Your task to perform on an android device: move a message to another label in the gmail app Image 0: 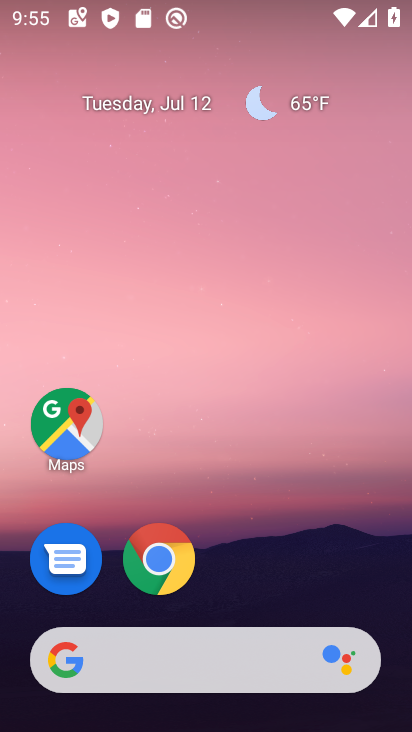
Step 0: drag from (328, 580) to (299, 171)
Your task to perform on an android device: move a message to another label in the gmail app Image 1: 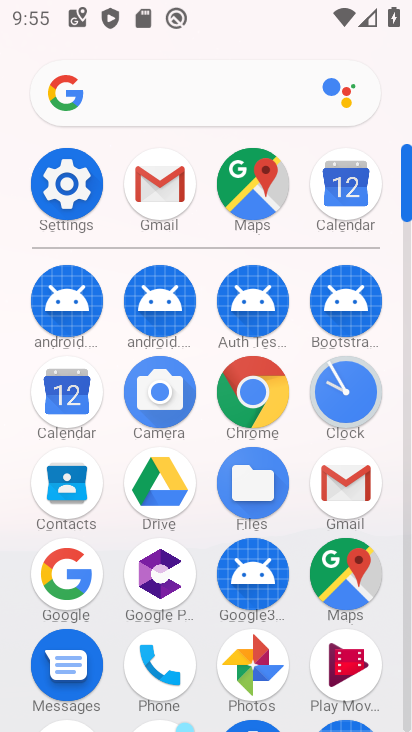
Step 1: click (359, 483)
Your task to perform on an android device: move a message to another label in the gmail app Image 2: 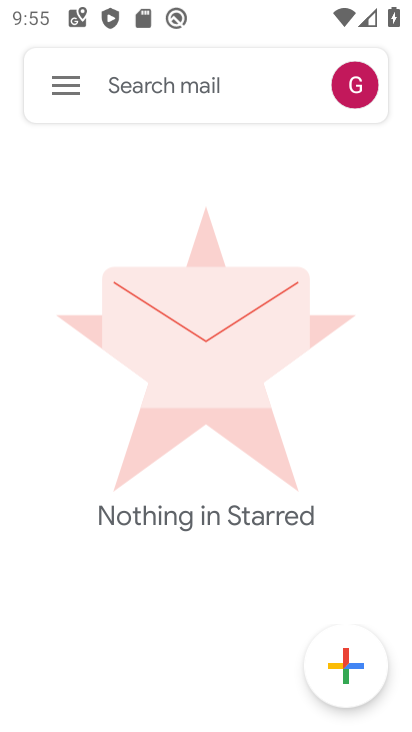
Step 2: click (79, 91)
Your task to perform on an android device: move a message to another label in the gmail app Image 3: 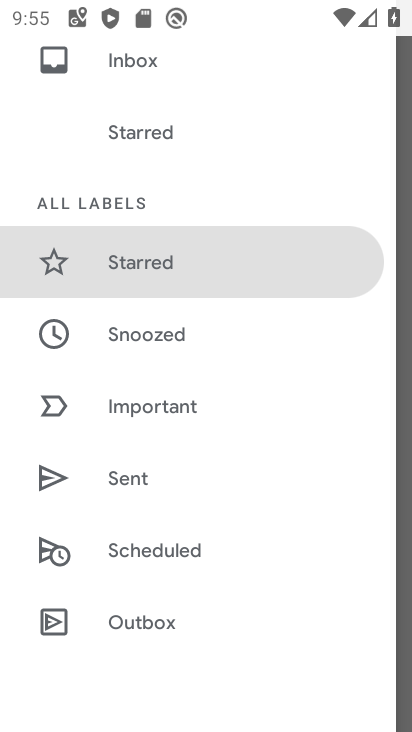
Step 3: drag from (282, 441) to (281, 356)
Your task to perform on an android device: move a message to another label in the gmail app Image 4: 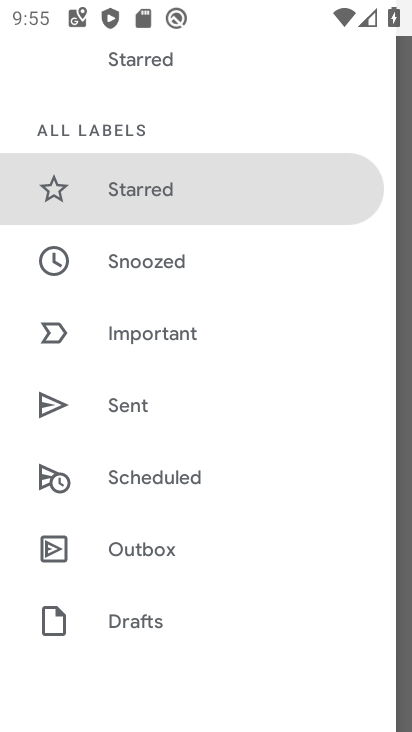
Step 4: drag from (282, 494) to (276, 373)
Your task to perform on an android device: move a message to another label in the gmail app Image 5: 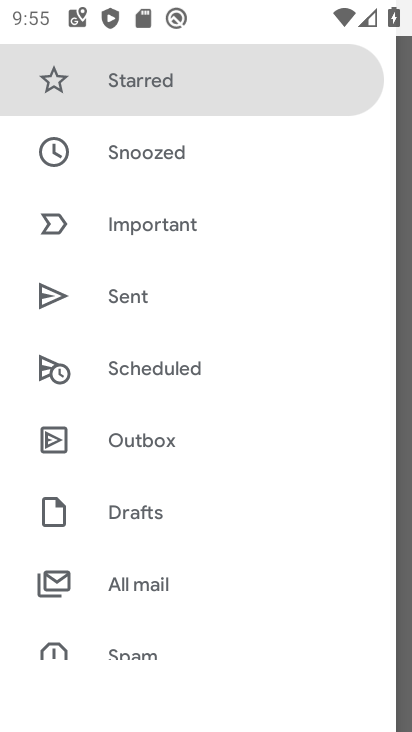
Step 5: drag from (269, 492) to (269, 374)
Your task to perform on an android device: move a message to another label in the gmail app Image 6: 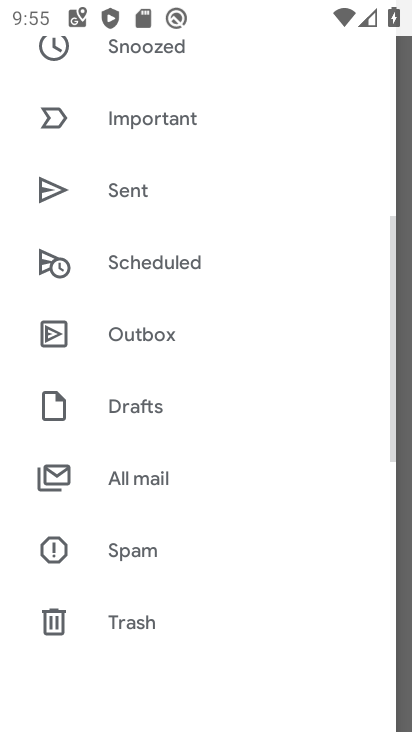
Step 6: drag from (266, 473) to (258, 292)
Your task to perform on an android device: move a message to another label in the gmail app Image 7: 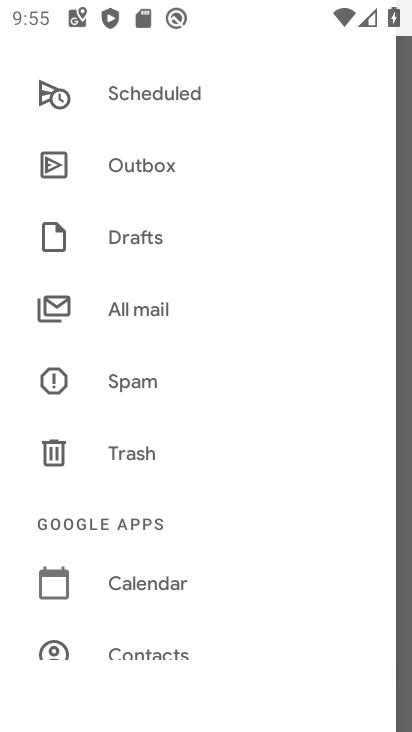
Step 7: drag from (247, 252) to (247, 349)
Your task to perform on an android device: move a message to another label in the gmail app Image 8: 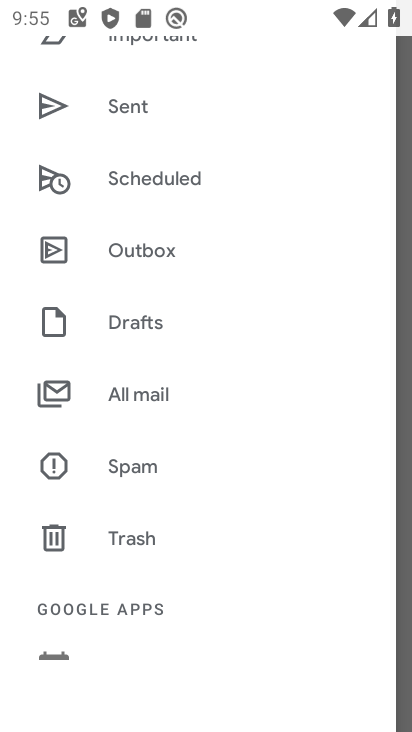
Step 8: drag from (267, 301) to (267, 399)
Your task to perform on an android device: move a message to another label in the gmail app Image 9: 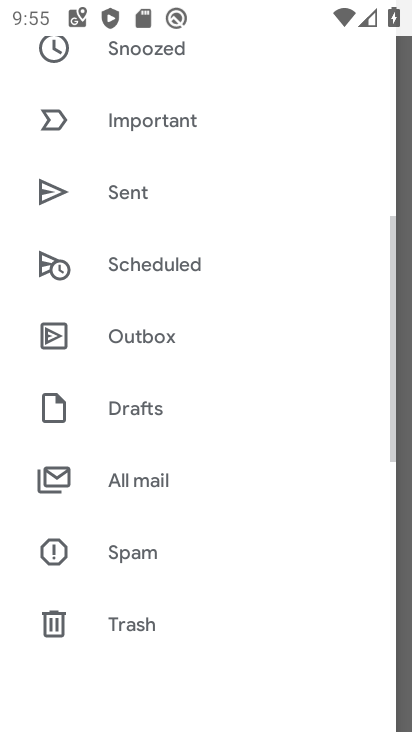
Step 9: drag from (286, 327) to (289, 412)
Your task to perform on an android device: move a message to another label in the gmail app Image 10: 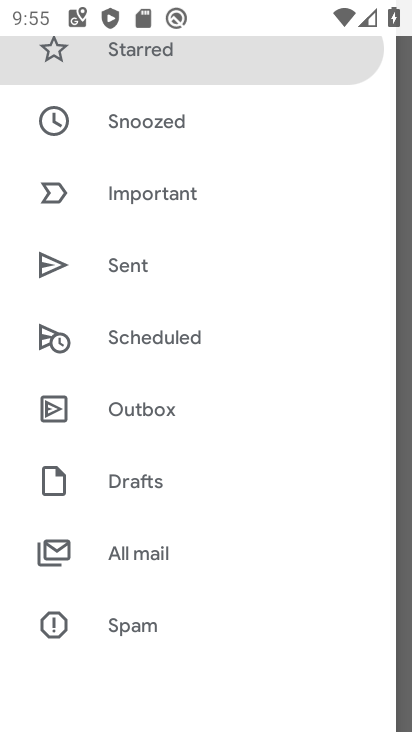
Step 10: drag from (298, 290) to (304, 413)
Your task to perform on an android device: move a message to another label in the gmail app Image 11: 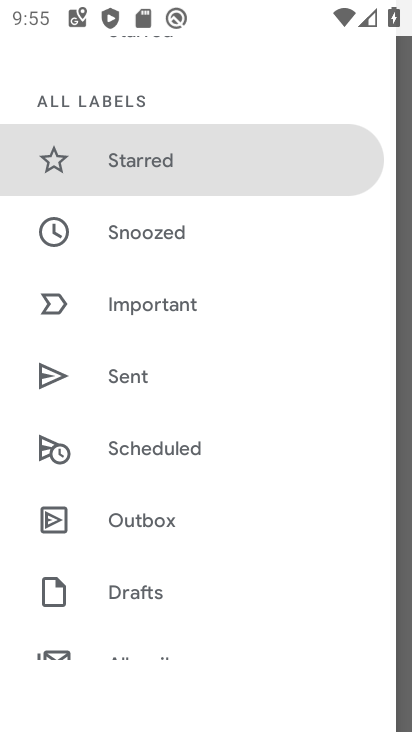
Step 11: drag from (328, 309) to (326, 410)
Your task to perform on an android device: move a message to another label in the gmail app Image 12: 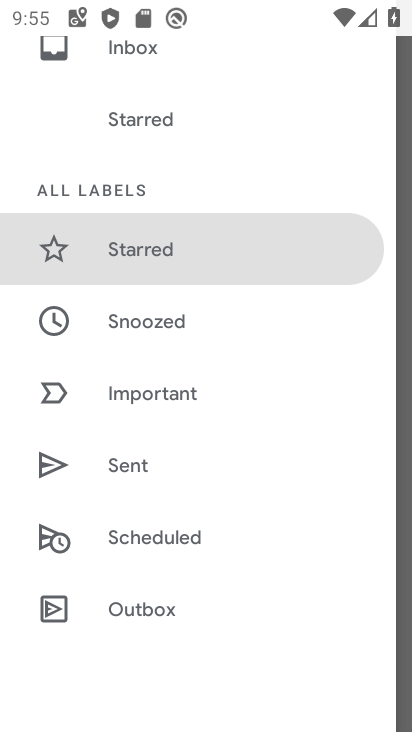
Step 12: drag from (301, 339) to (309, 470)
Your task to perform on an android device: move a message to another label in the gmail app Image 13: 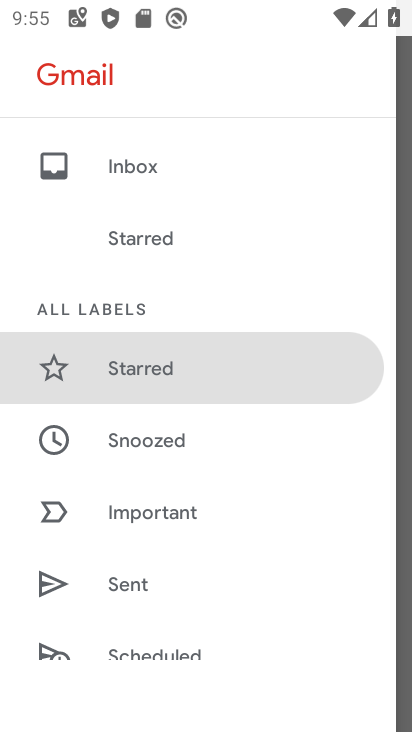
Step 13: drag from (291, 285) to (275, 470)
Your task to perform on an android device: move a message to another label in the gmail app Image 14: 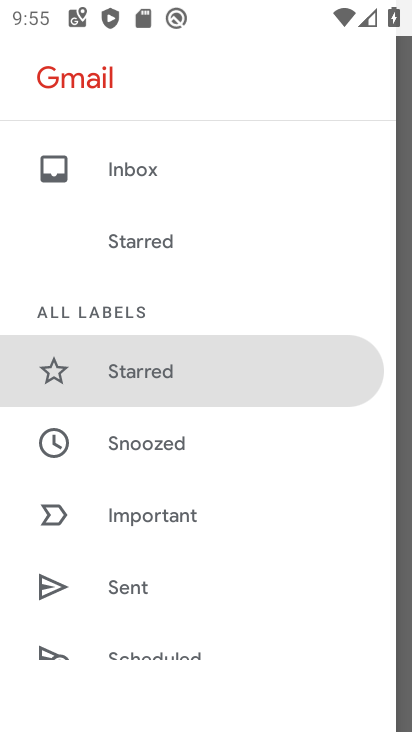
Step 14: click (181, 174)
Your task to perform on an android device: move a message to another label in the gmail app Image 15: 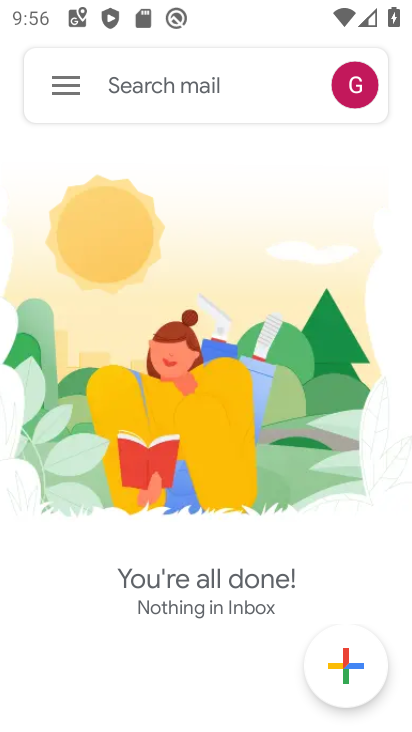
Step 15: task complete